Your task to perform on an android device: Go to Yahoo.com Image 0: 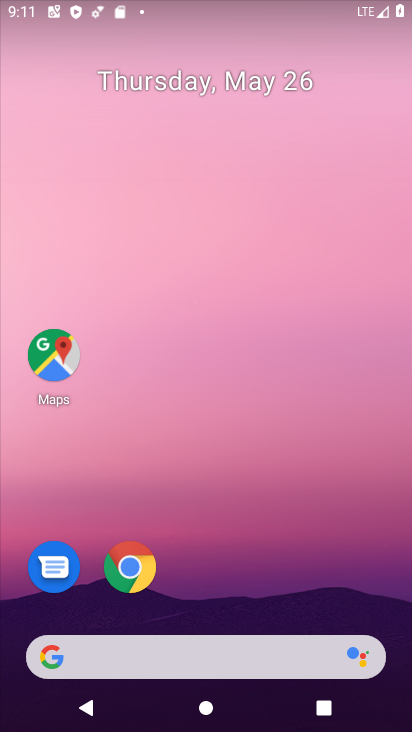
Step 0: click (238, 650)
Your task to perform on an android device: Go to Yahoo.com Image 1: 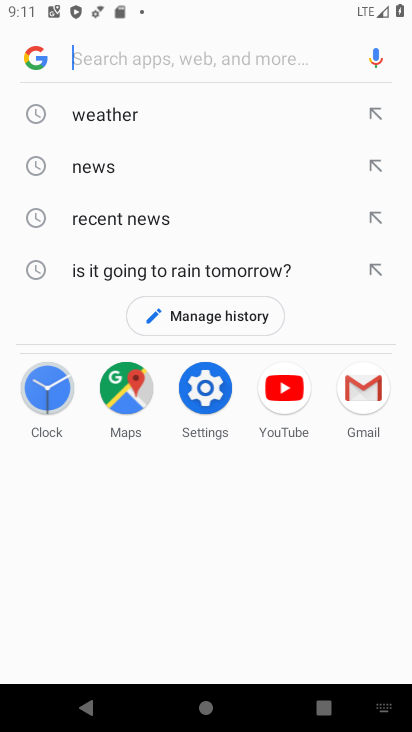
Step 1: type "yahoo.com"
Your task to perform on an android device: Go to Yahoo.com Image 2: 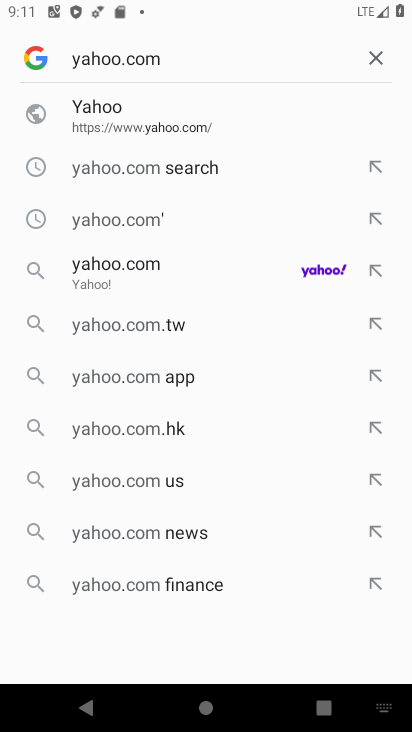
Step 2: click (201, 119)
Your task to perform on an android device: Go to Yahoo.com Image 3: 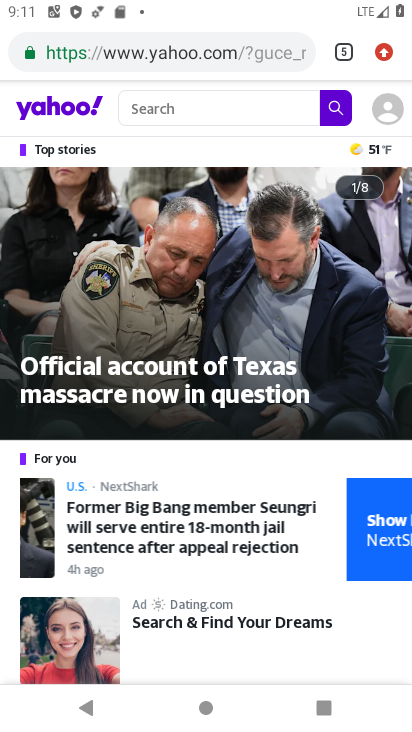
Step 3: task complete